Your task to perform on an android device: open app "Pluto TV - Live TV and Movies" Image 0: 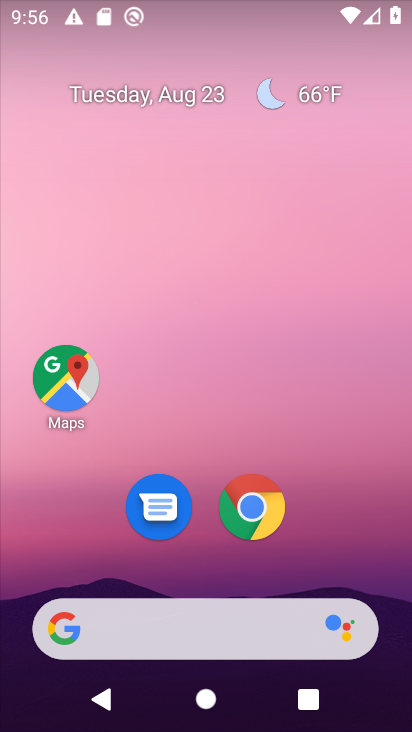
Step 0: drag from (392, 653) to (368, 87)
Your task to perform on an android device: open app "Pluto TV - Live TV and Movies" Image 1: 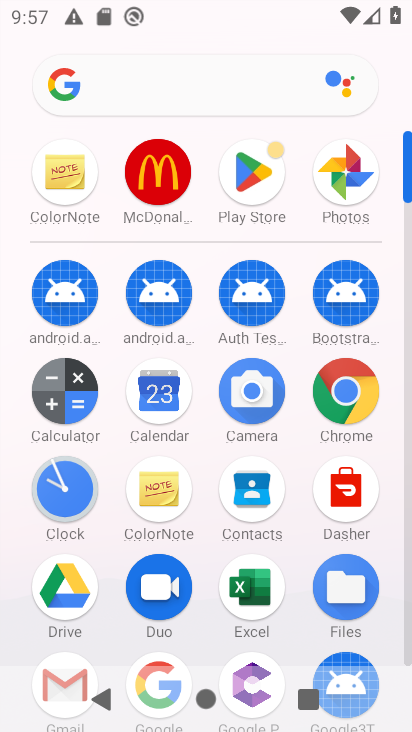
Step 1: click (407, 638)
Your task to perform on an android device: open app "Pluto TV - Live TV and Movies" Image 2: 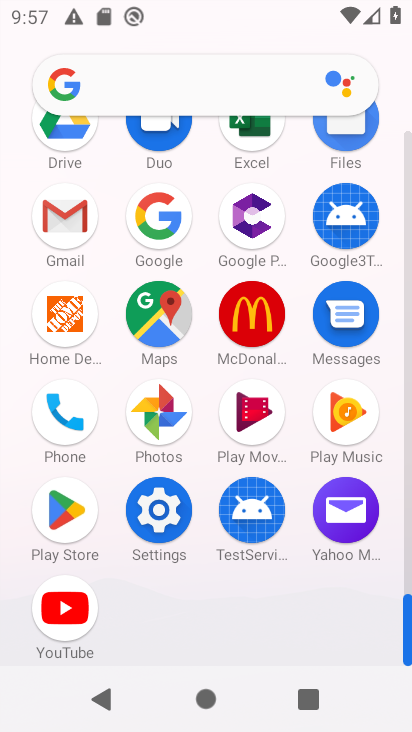
Step 2: click (60, 509)
Your task to perform on an android device: open app "Pluto TV - Live TV and Movies" Image 3: 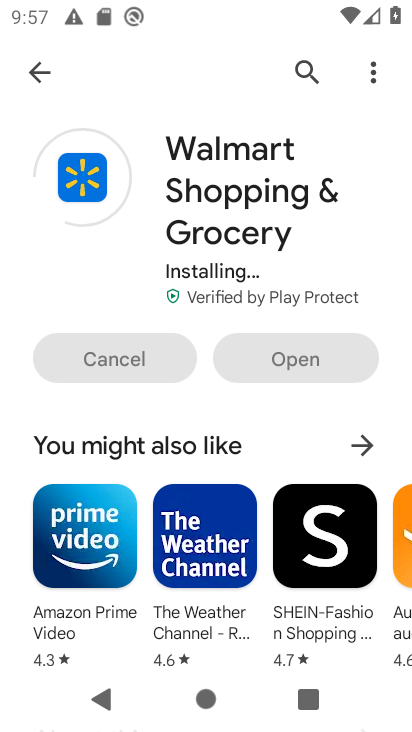
Step 3: click (303, 62)
Your task to perform on an android device: open app "Pluto TV - Live TV and Movies" Image 4: 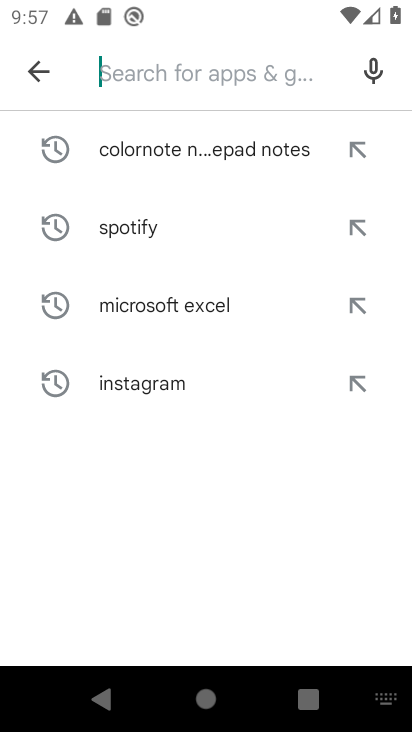
Step 4: type "Pluto TV - Live TV and Movies"
Your task to perform on an android device: open app "Pluto TV - Live TV and Movies" Image 5: 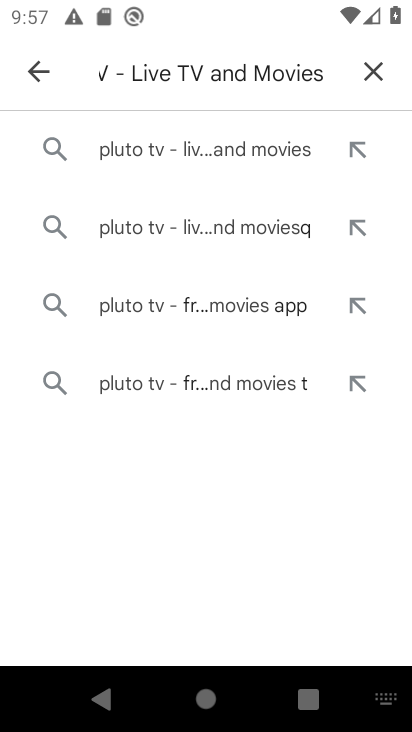
Step 5: click (140, 149)
Your task to perform on an android device: open app "Pluto TV - Live TV and Movies" Image 6: 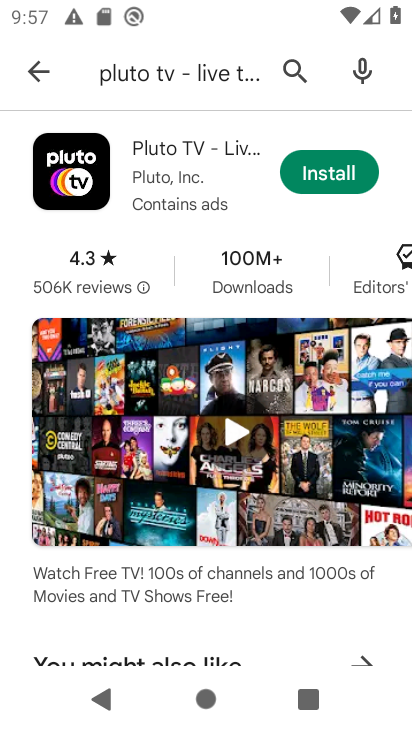
Step 6: task complete